Your task to perform on an android device: make emails show in primary in the gmail app Image 0: 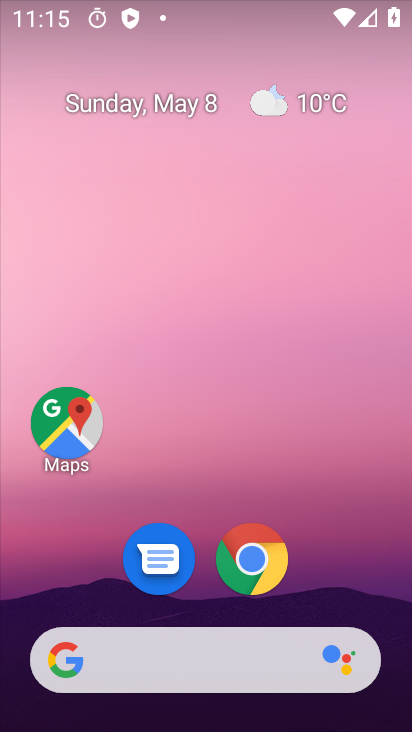
Step 0: drag from (217, 609) to (267, 166)
Your task to perform on an android device: make emails show in primary in the gmail app Image 1: 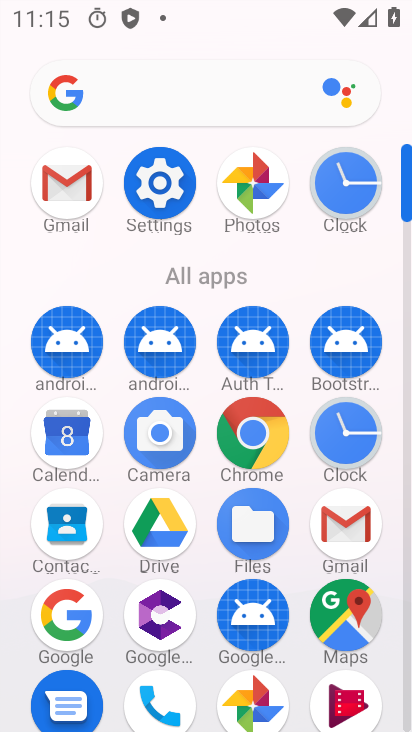
Step 1: click (68, 170)
Your task to perform on an android device: make emails show in primary in the gmail app Image 2: 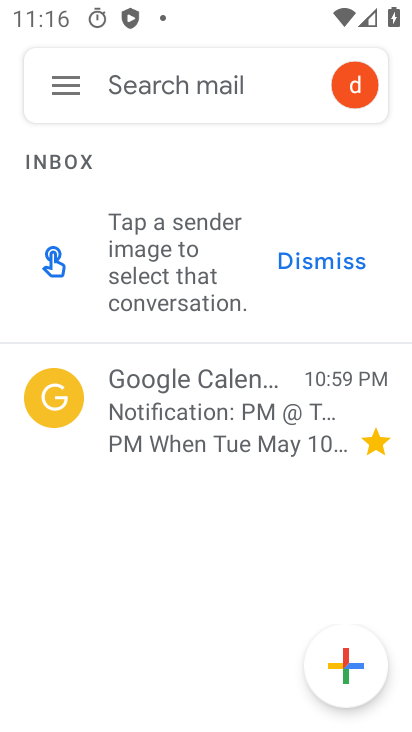
Step 2: click (70, 92)
Your task to perform on an android device: make emails show in primary in the gmail app Image 3: 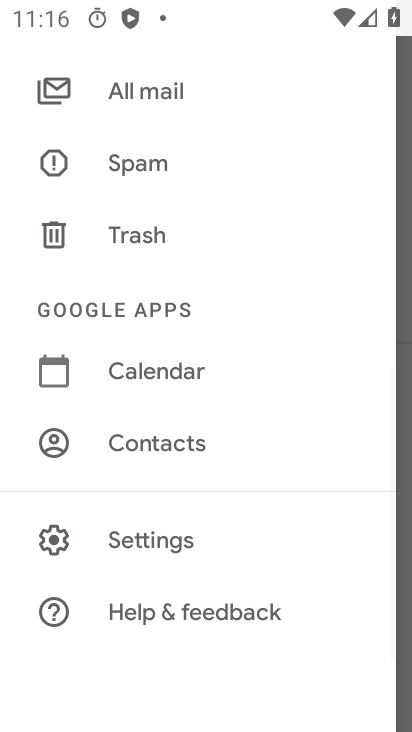
Step 3: click (145, 547)
Your task to perform on an android device: make emails show in primary in the gmail app Image 4: 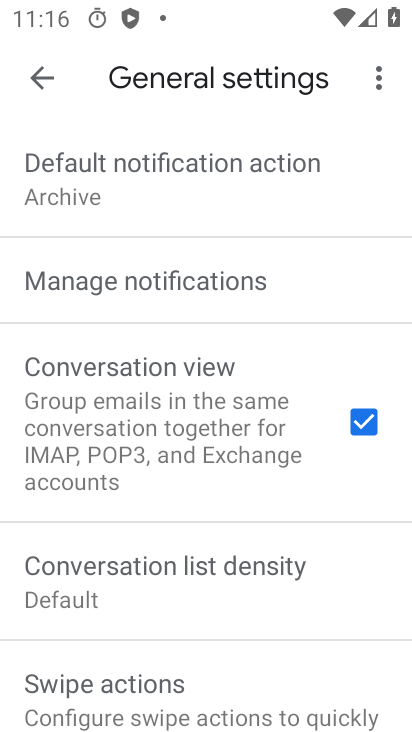
Step 4: click (47, 84)
Your task to perform on an android device: make emails show in primary in the gmail app Image 5: 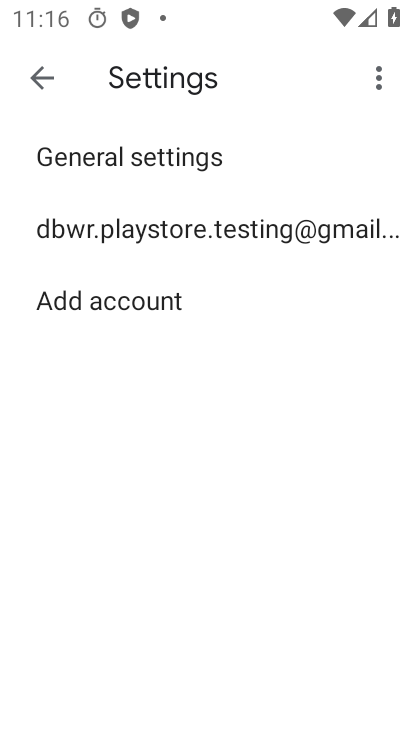
Step 5: click (152, 253)
Your task to perform on an android device: make emails show in primary in the gmail app Image 6: 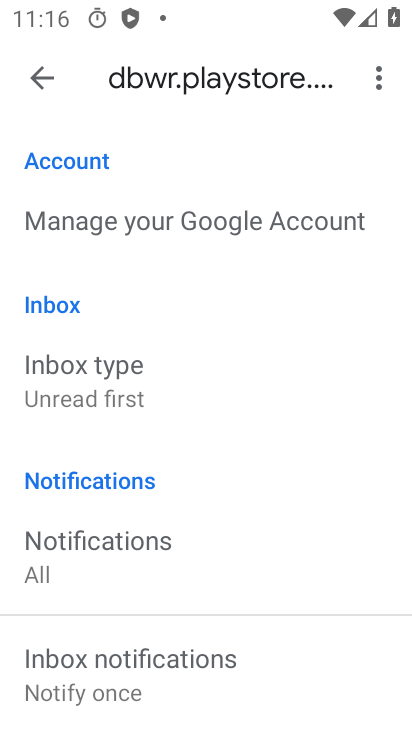
Step 6: click (116, 407)
Your task to perform on an android device: make emails show in primary in the gmail app Image 7: 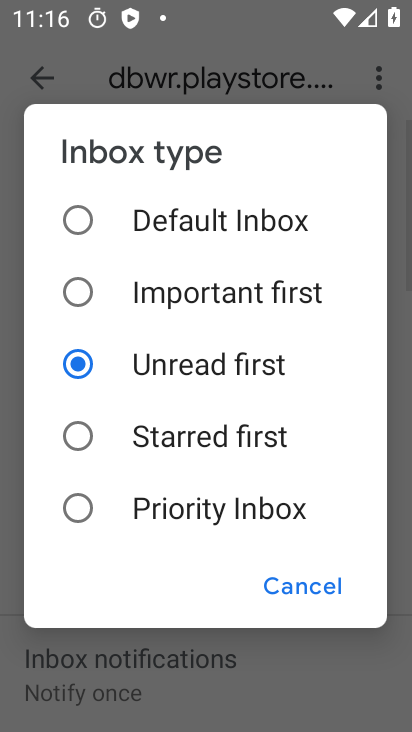
Step 7: click (128, 234)
Your task to perform on an android device: make emails show in primary in the gmail app Image 8: 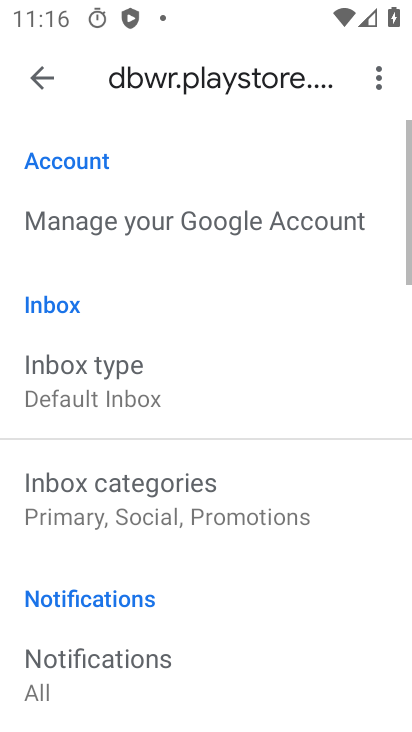
Step 8: click (134, 495)
Your task to perform on an android device: make emails show in primary in the gmail app Image 9: 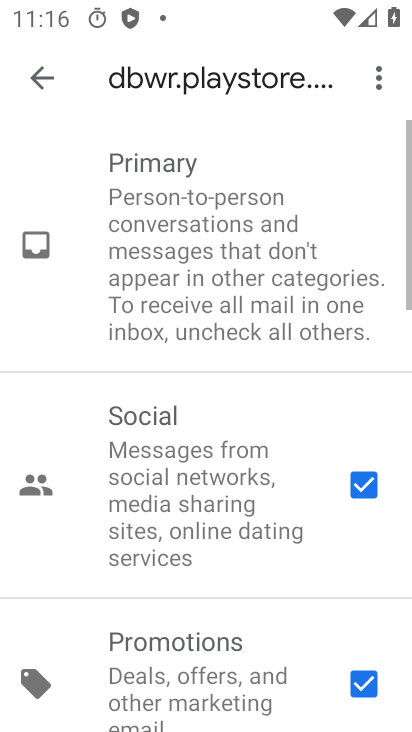
Step 9: click (350, 493)
Your task to perform on an android device: make emails show in primary in the gmail app Image 10: 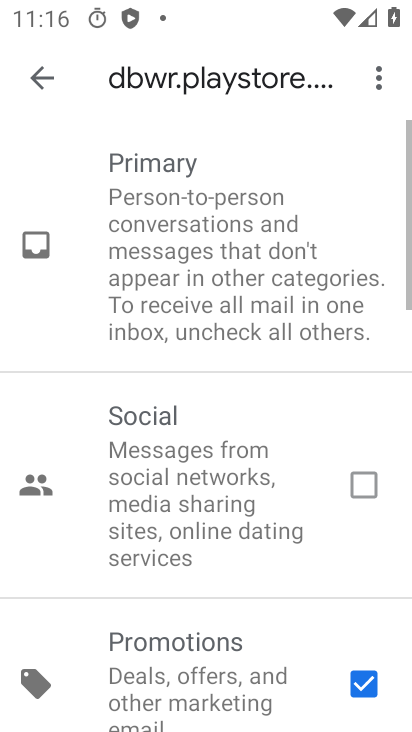
Step 10: click (354, 668)
Your task to perform on an android device: make emails show in primary in the gmail app Image 11: 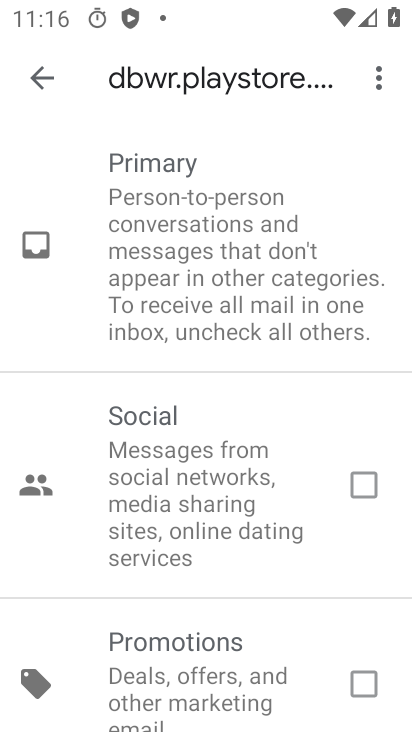
Step 11: task complete